Your task to perform on an android device: Go to Reddit.com Image 0: 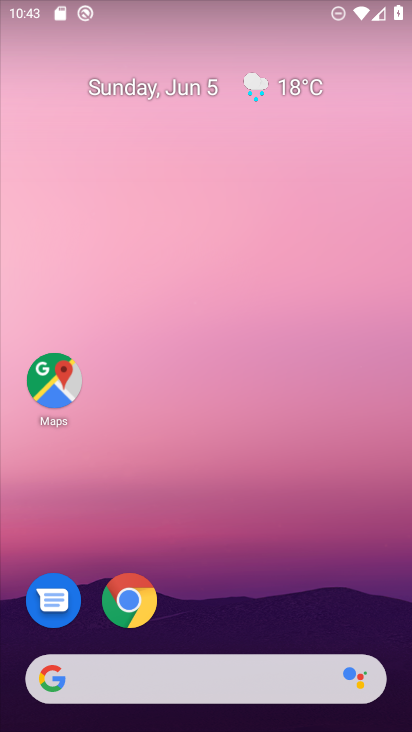
Step 0: click (148, 594)
Your task to perform on an android device: Go to Reddit.com Image 1: 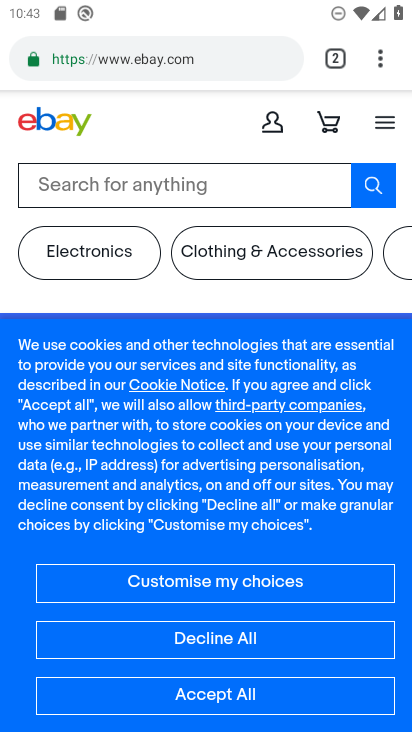
Step 1: click (325, 57)
Your task to perform on an android device: Go to Reddit.com Image 2: 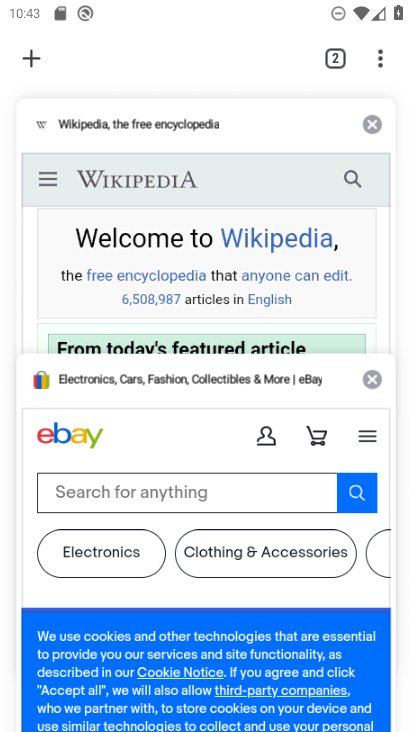
Step 2: click (33, 56)
Your task to perform on an android device: Go to Reddit.com Image 3: 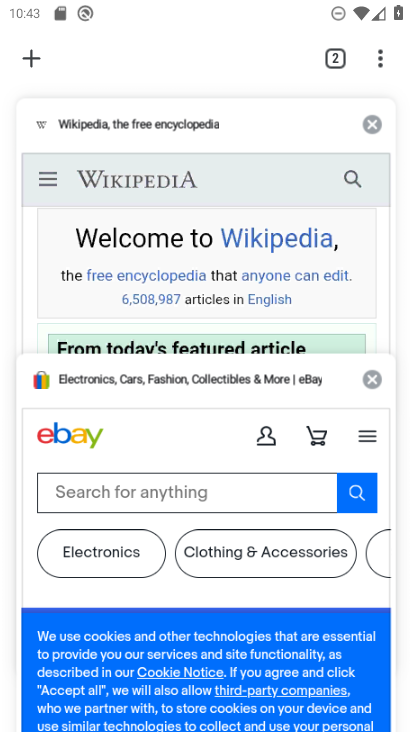
Step 3: click (32, 51)
Your task to perform on an android device: Go to Reddit.com Image 4: 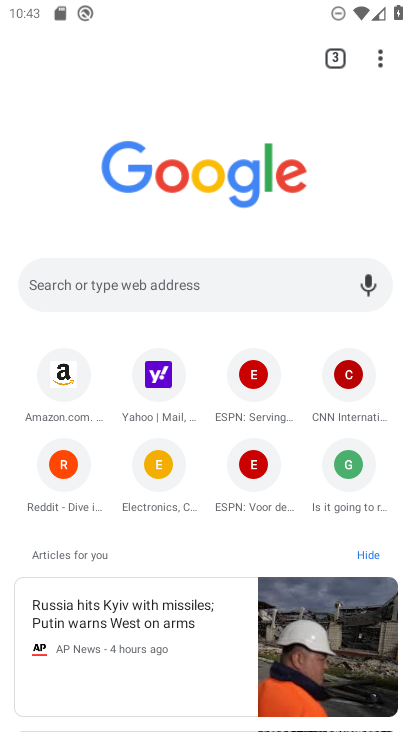
Step 4: click (70, 492)
Your task to perform on an android device: Go to Reddit.com Image 5: 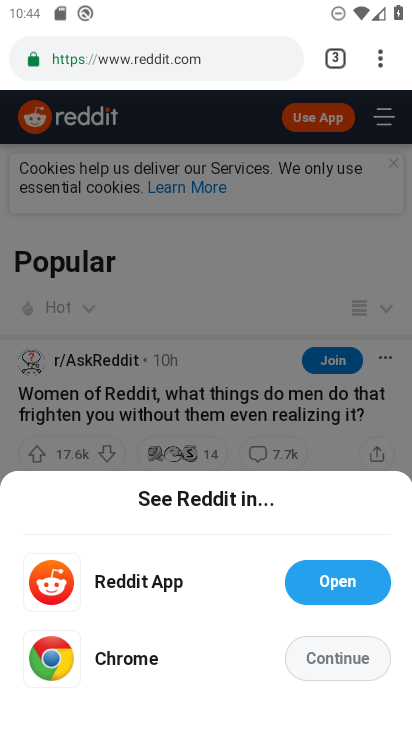
Step 5: task complete